Your task to perform on an android device: Go to accessibility settings Image 0: 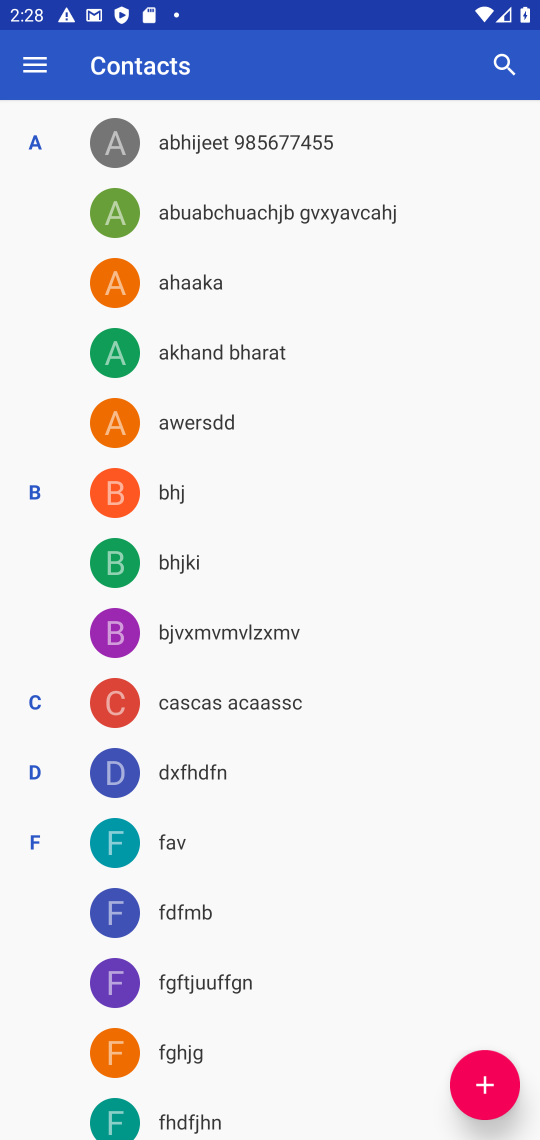
Step 0: press home button
Your task to perform on an android device: Go to accessibility settings Image 1: 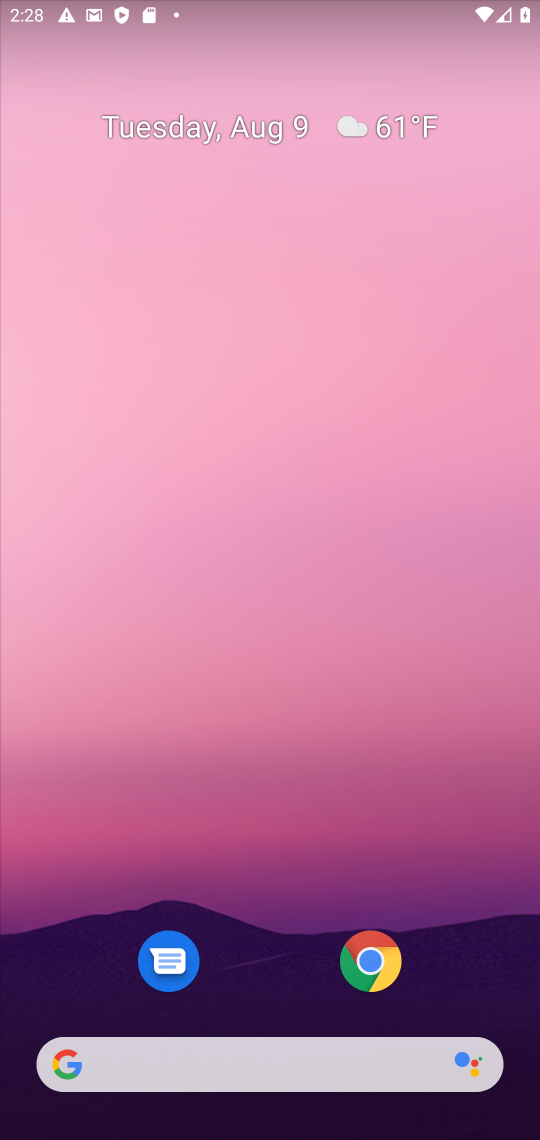
Step 1: drag from (267, 950) to (279, 231)
Your task to perform on an android device: Go to accessibility settings Image 2: 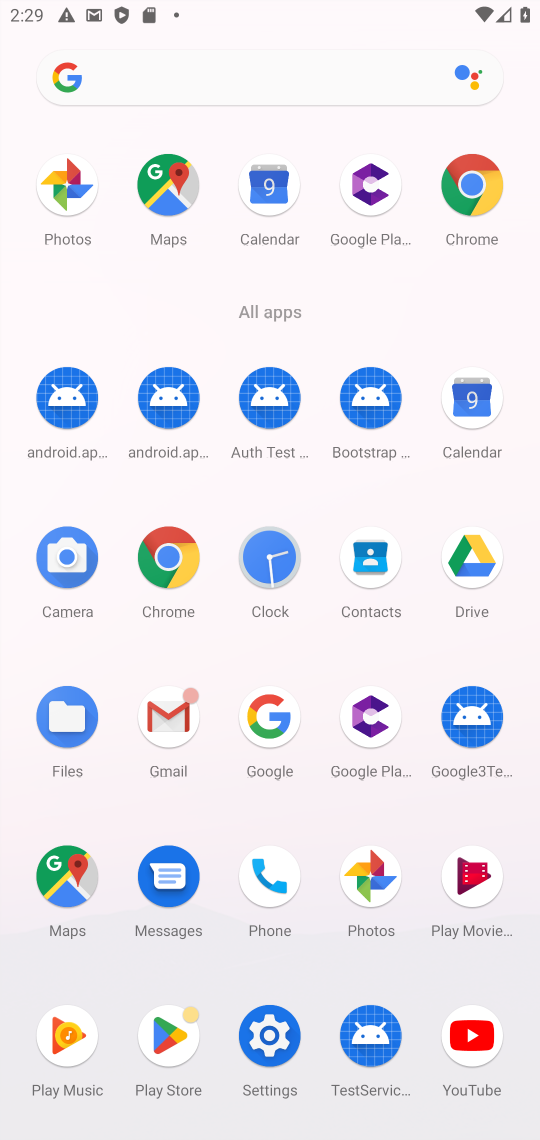
Step 2: click (274, 1026)
Your task to perform on an android device: Go to accessibility settings Image 3: 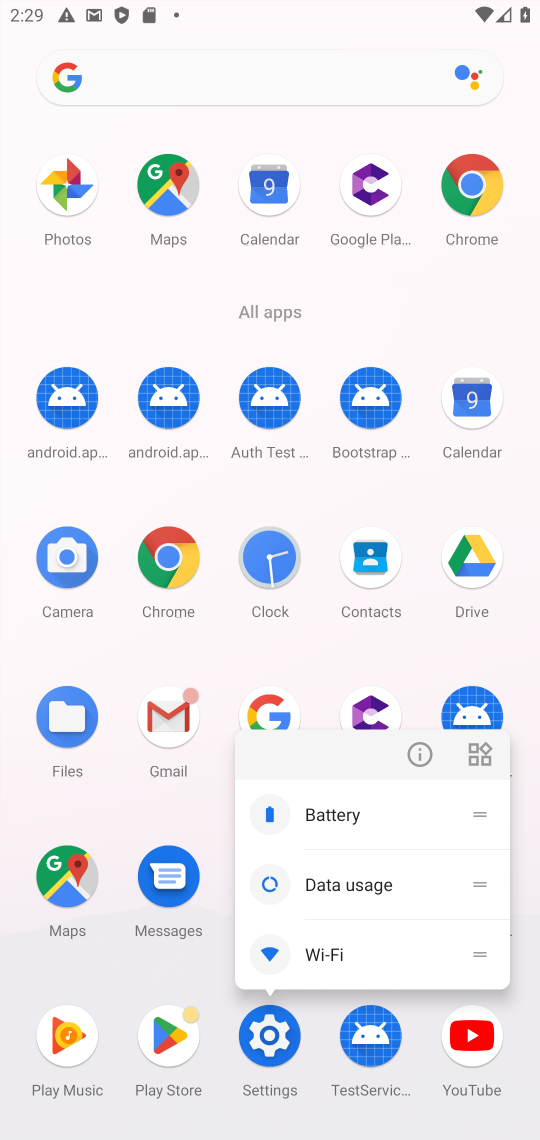
Step 3: click (274, 1028)
Your task to perform on an android device: Go to accessibility settings Image 4: 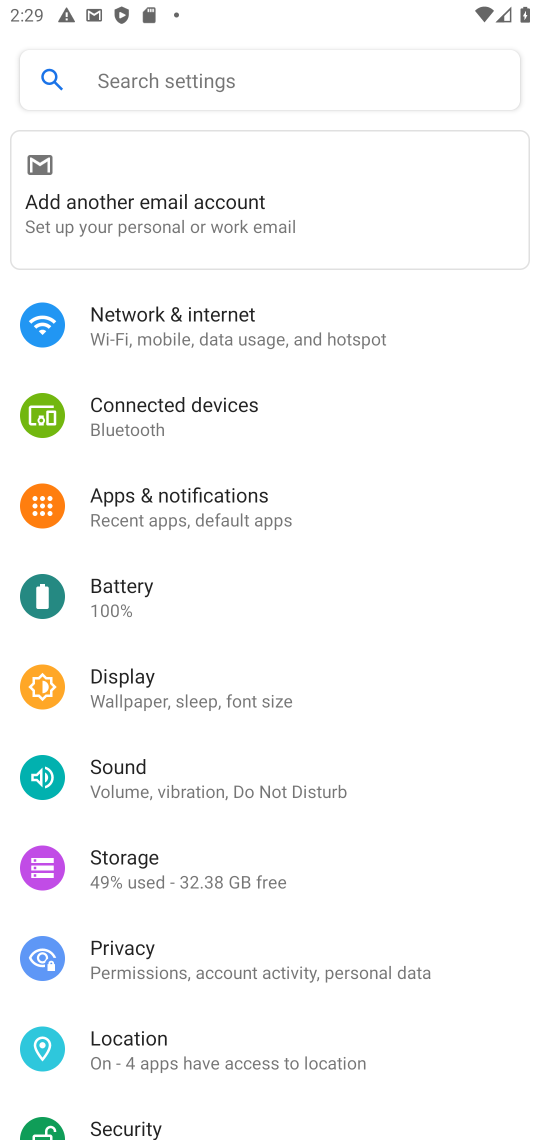
Step 4: drag from (209, 598) to (218, 338)
Your task to perform on an android device: Go to accessibility settings Image 5: 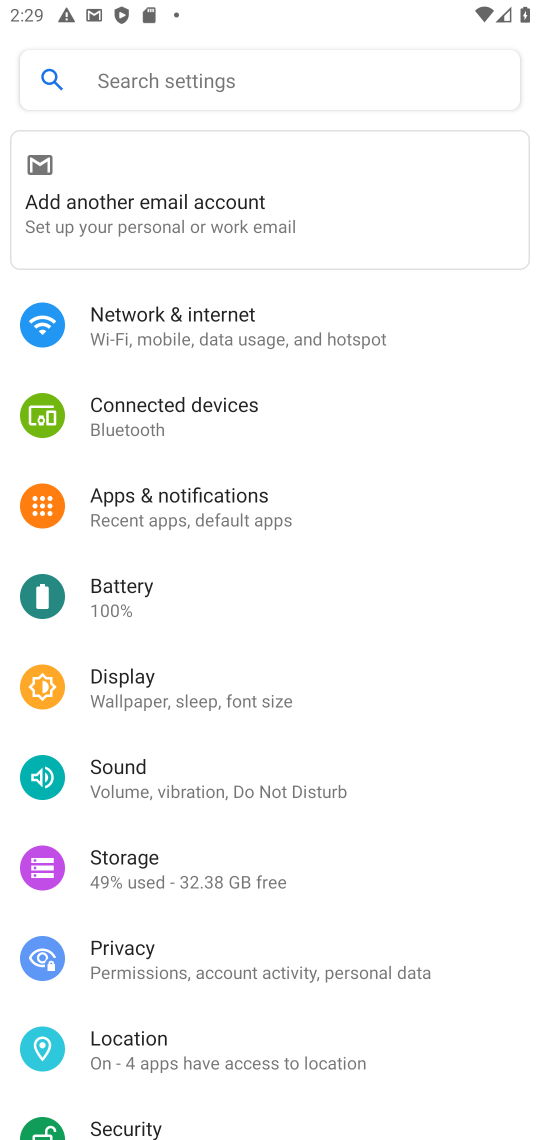
Step 5: drag from (189, 1053) to (189, 179)
Your task to perform on an android device: Go to accessibility settings Image 6: 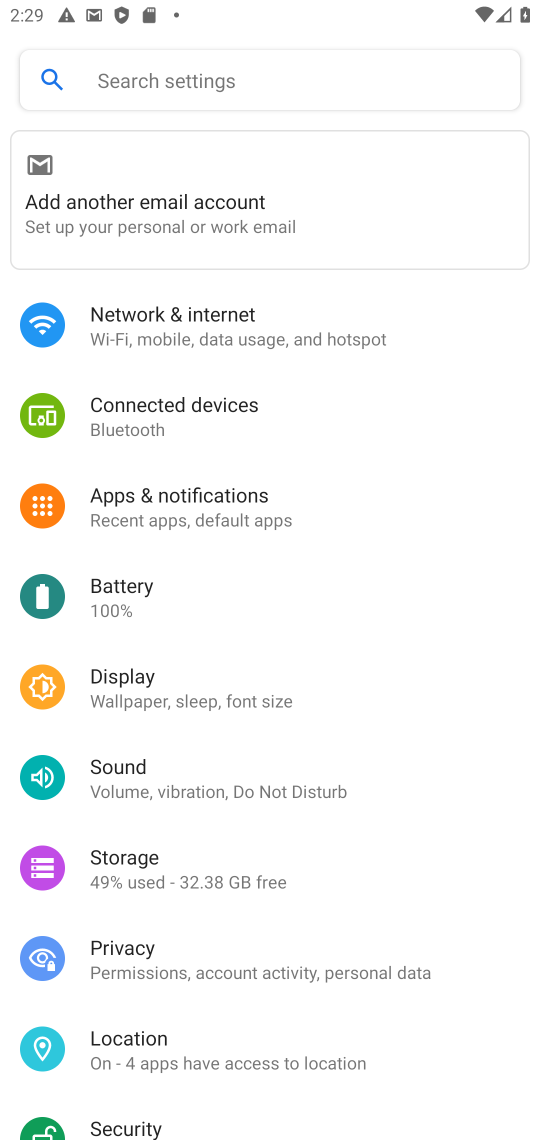
Step 6: drag from (129, 1027) to (123, 396)
Your task to perform on an android device: Go to accessibility settings Image 7: 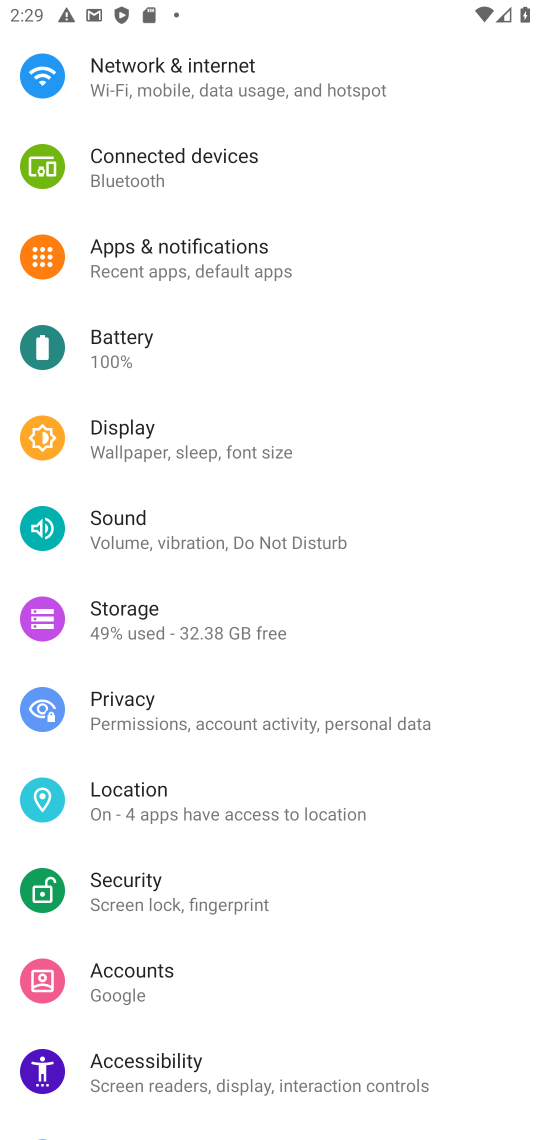
Step 7: click (223, 1070)
Your task to perform on an android device: Go to accessibility settings Image 8: 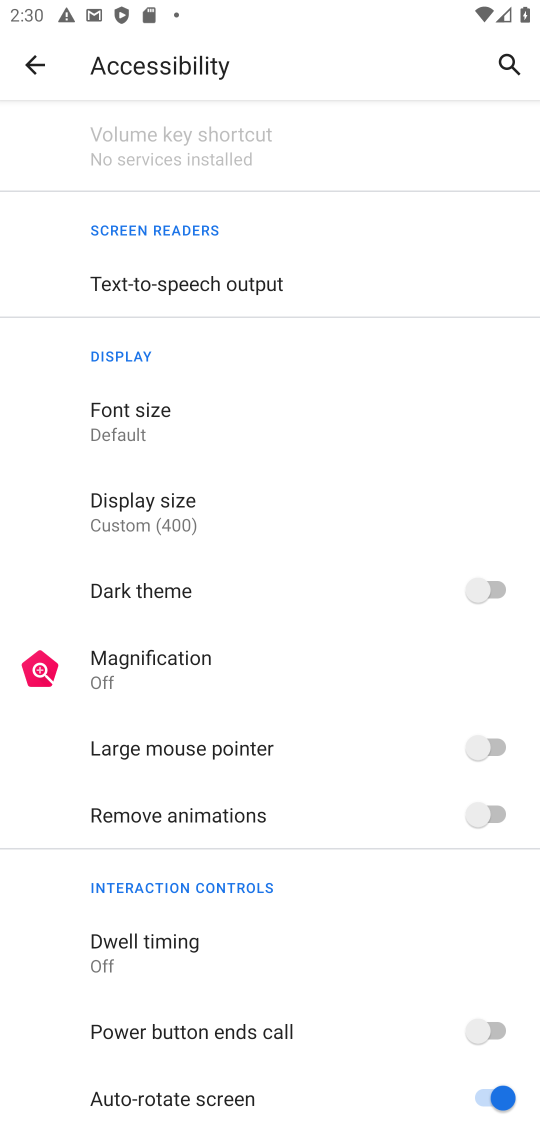
Step 8: task complete